Your task to perform on an android device: Check the settings for the Google Play Books app Image 0: 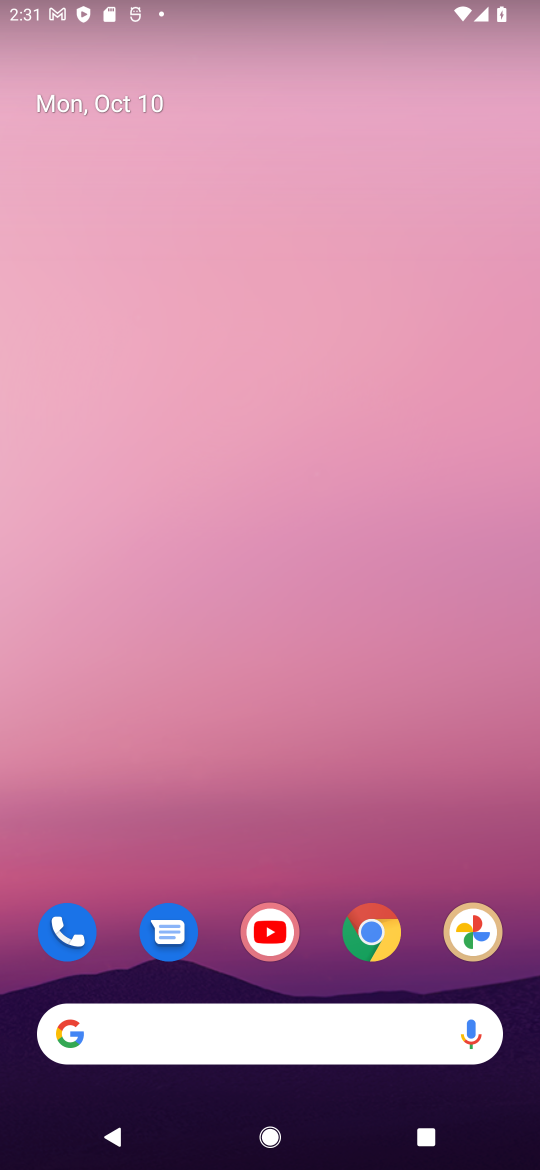
Step 0: drag from (489, 834) to (444, 64)
Your task to perform on an android device: Check the settings for the Google Play Books app Image 1: 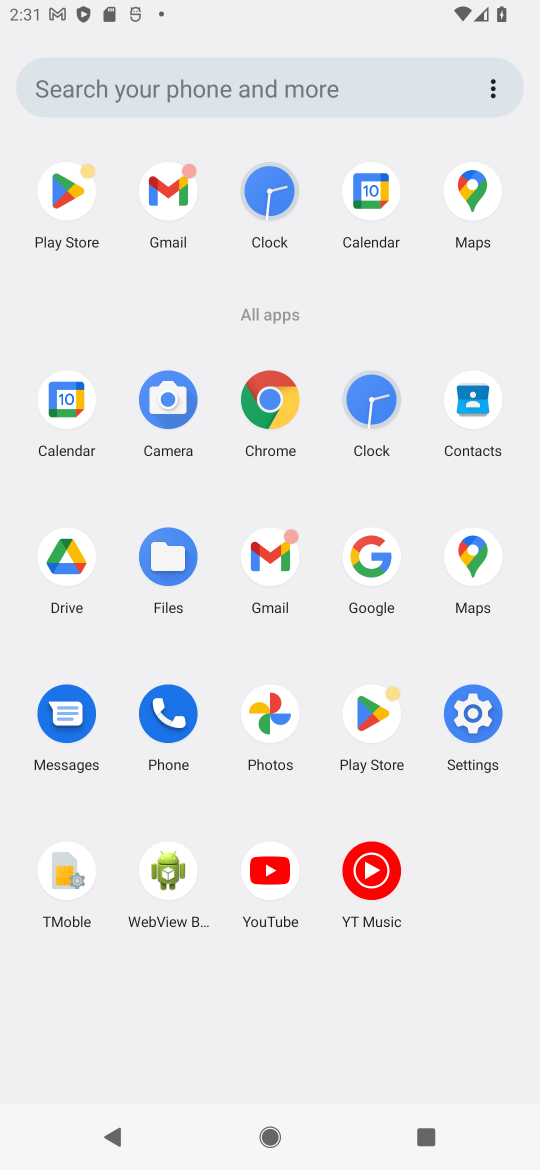
Step 1: click (364, 736)
Your task to perform on an android device: Check the settings for the Google Play Books app Image 2: 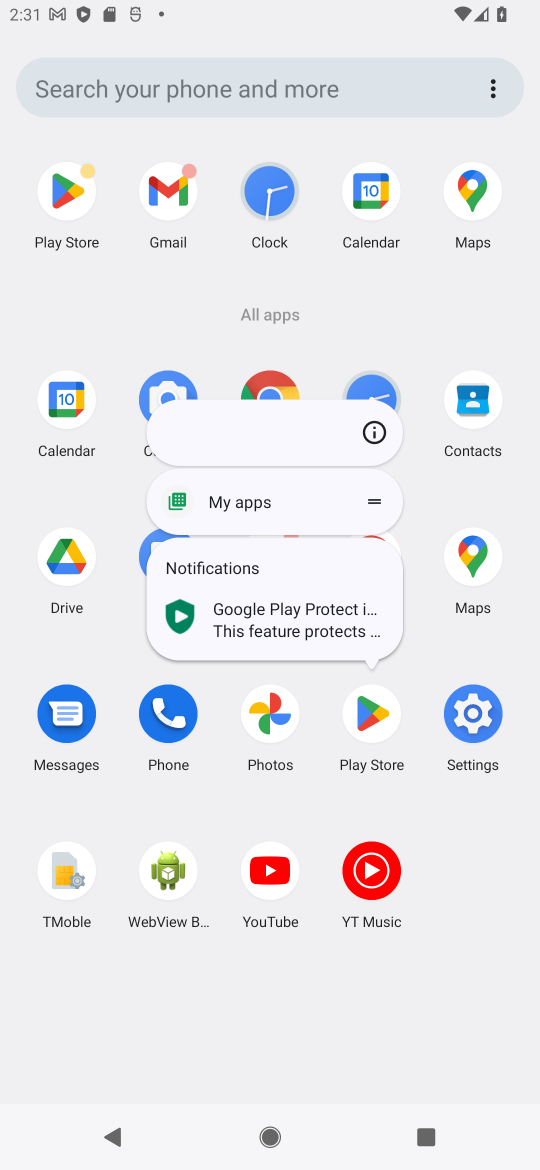
Step 2: click (383, 713)
Your task to perform on an android device: Check the settings for the Google Play Books app Image 3: 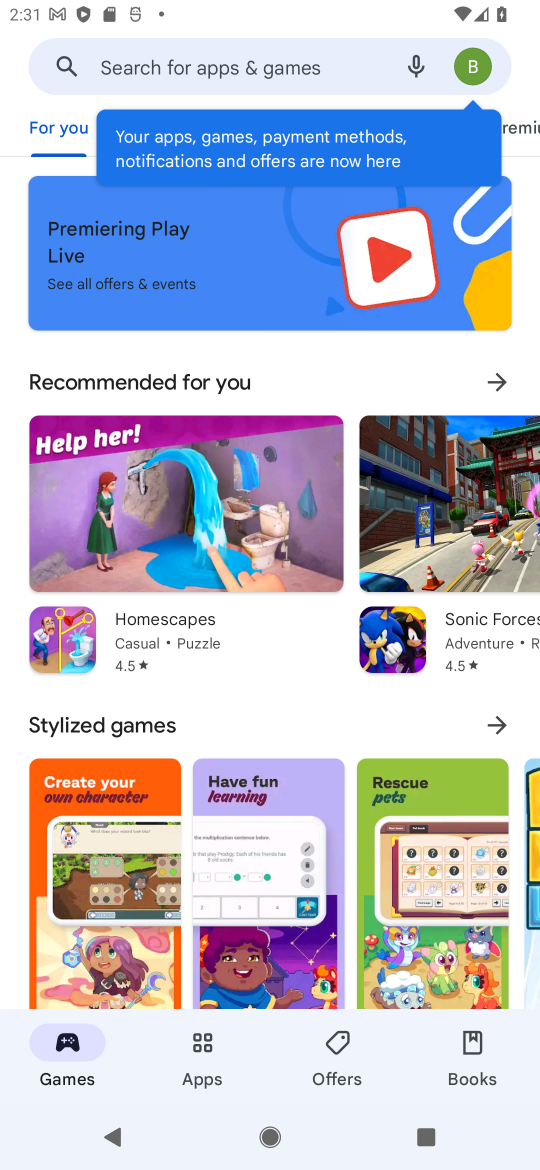
Step 3: press enter
Your task to perform on an android device: Check the settings for the Google Play Books app Image 4: 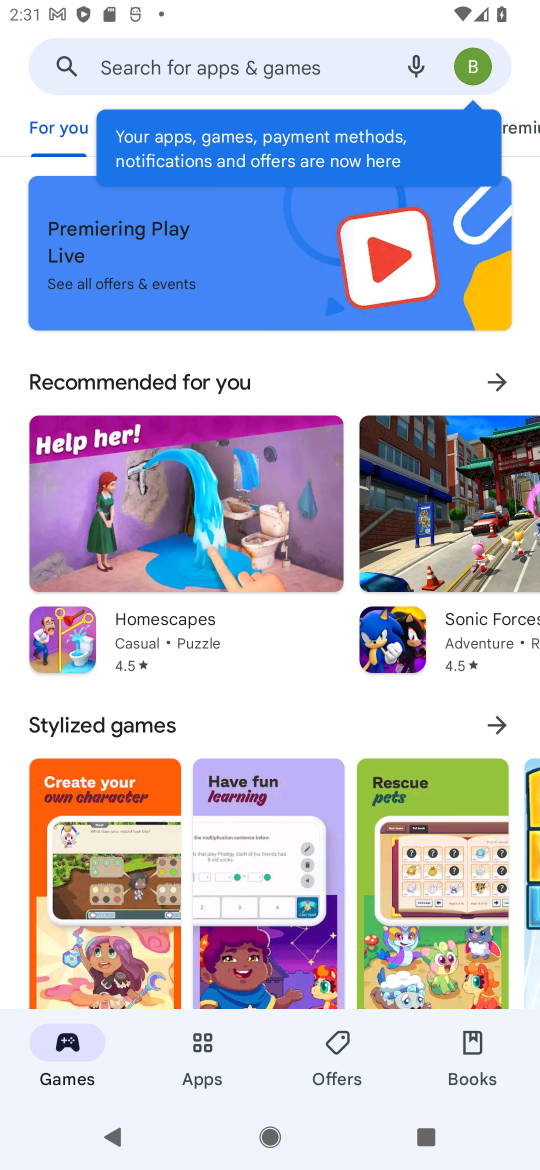
Step 4: type "Google Play Books app"
Your task to perform on an android device: Check the settings for the Google Play Books app Image 5: 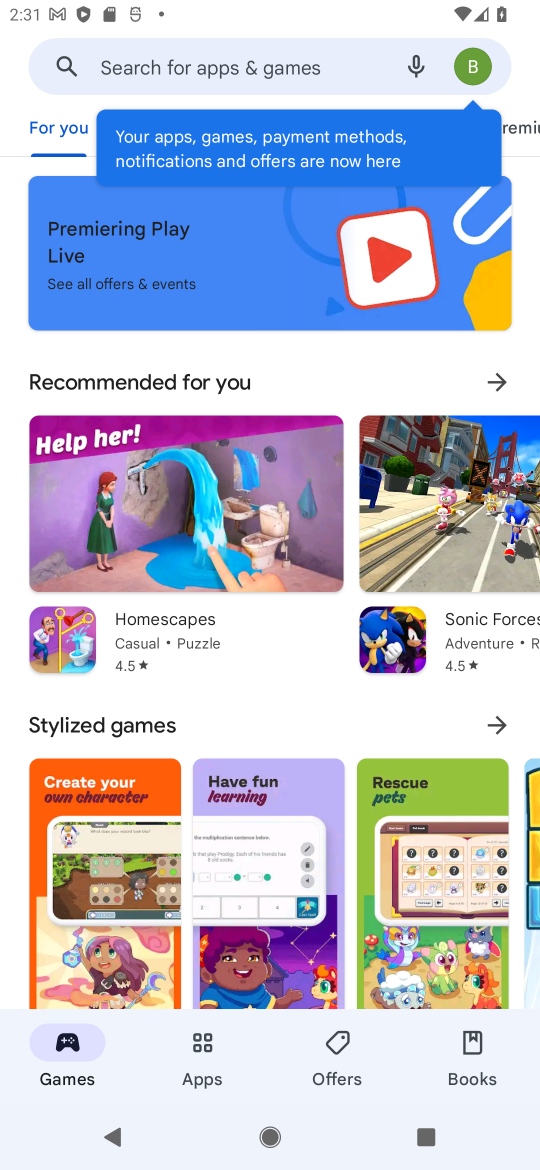
Step 5: click (160, 70)
Your task to perform on an android device: Check the settings for the Google Play Books app Image 6: 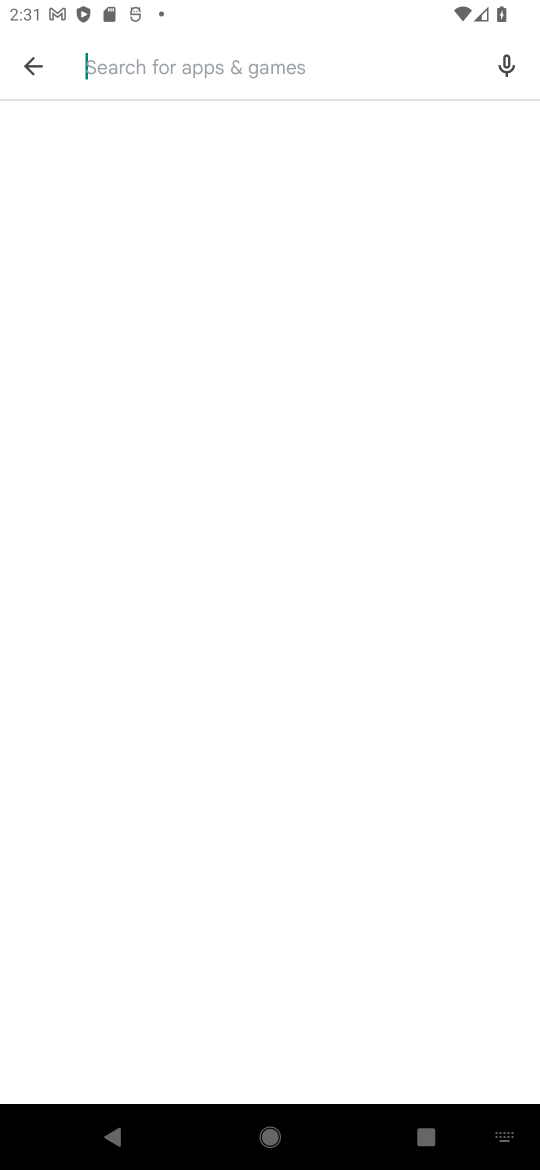
Step 6: type "Google Play Books app"
Your task to perform on an android device: Check the settings for the Google Play Books app Image 7: 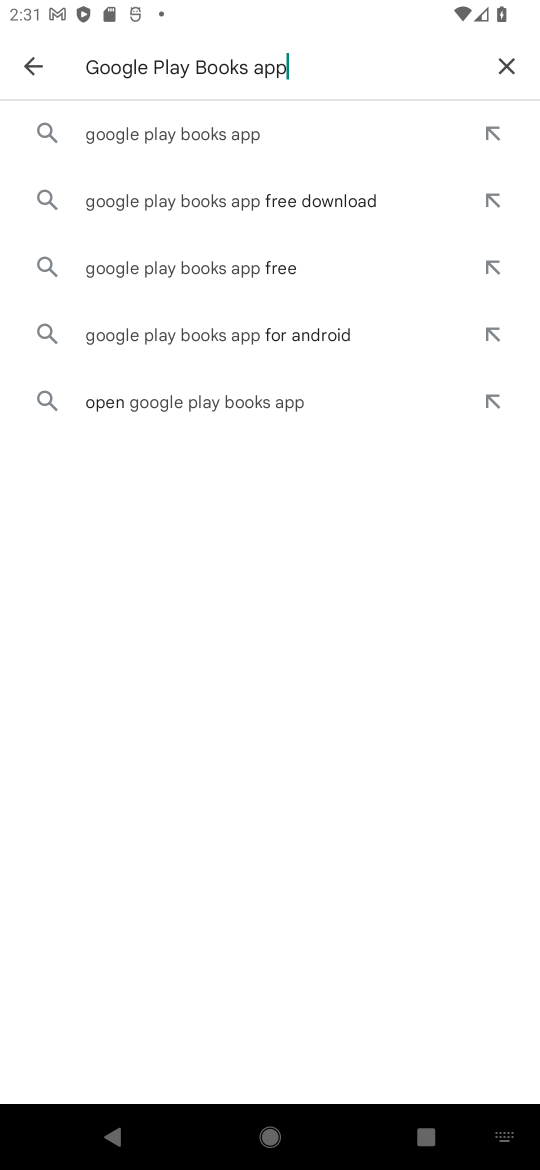
Step 7: click (230, 149)
Your task to perform on an android device: Check the settings for the Google Play Books app Image 8: 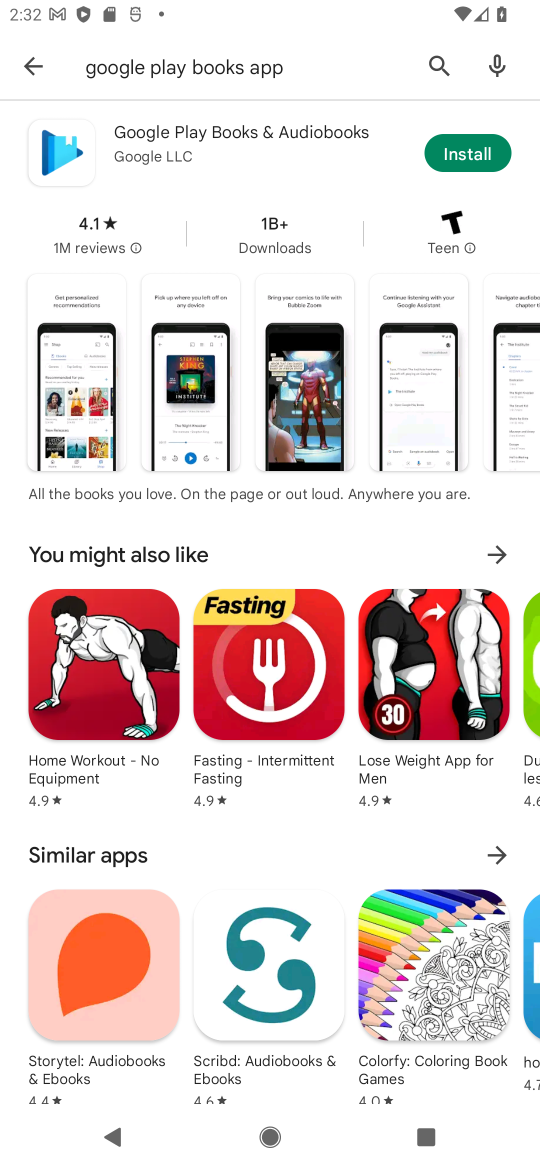
Step 8: task complete